Your task to perform on an android device: clear all cookies in the chrome app Image 0: 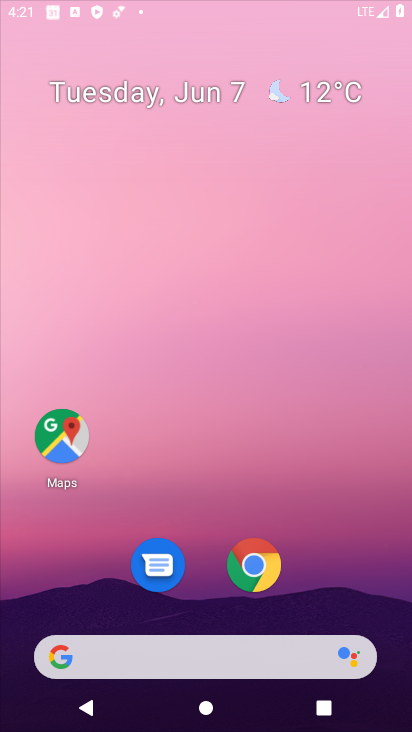
Step 0: press home button
Your task to perform on an android device: clear all cookies in the chrome app Image 1: 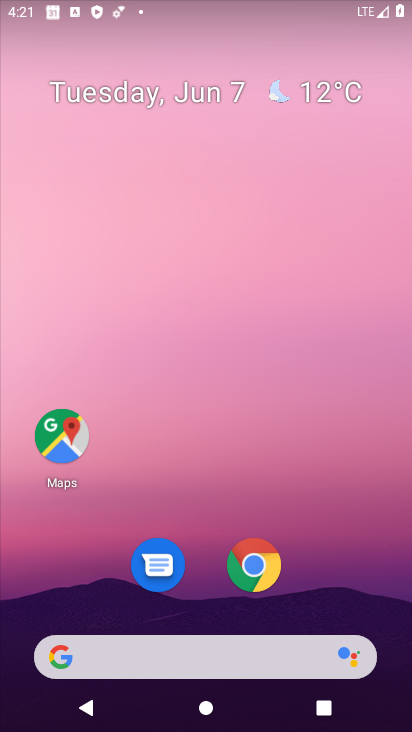
Step 1: drag from (313, 648) to (309, 0)
Your task to perform on an android device: clear all cookies in the chrome app Image 2: 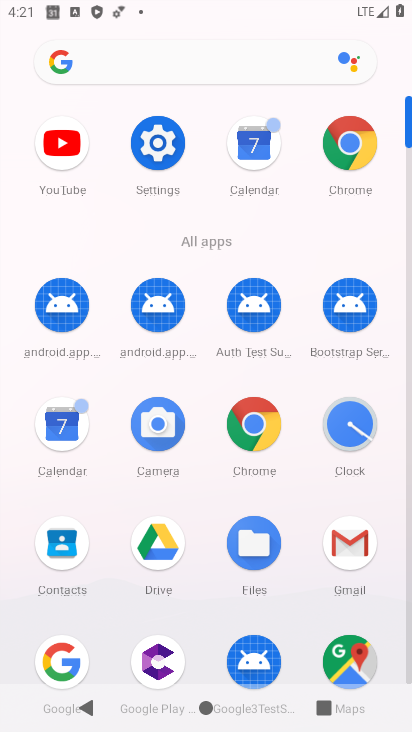
Step 2: click (250, 407)
Your task to perform on an android device: clear all cookies in the chrome app Image 3: 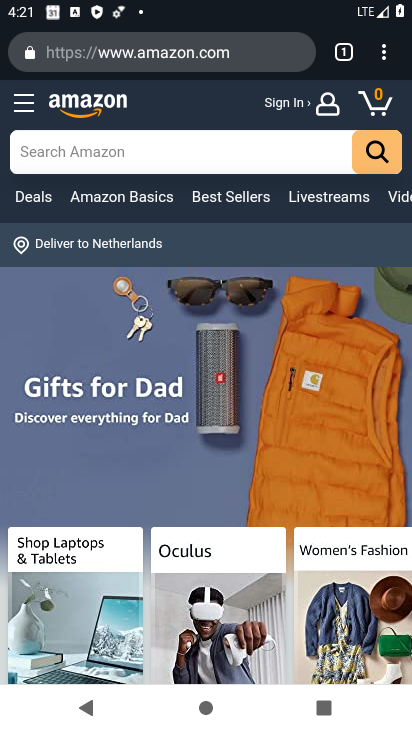
Step 3: drag from (391, 49) to (216, 612)
Your task to perform on an android device: clear all cookies in the chrome app Image 4: 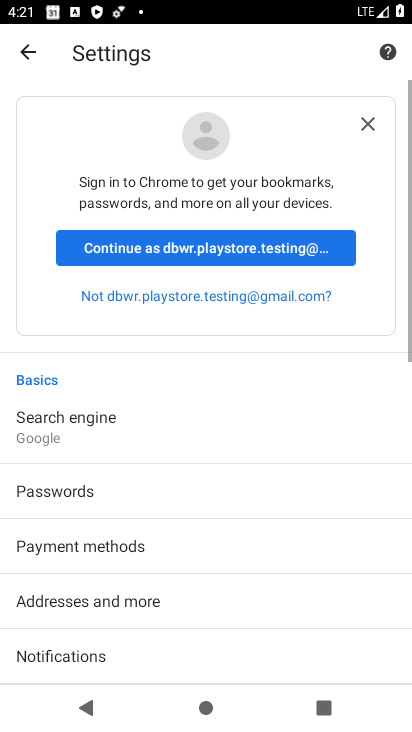
Step 4: drag from (60, 637) to (148, 117)
Your task to perform on an android device: clear all cookies in the chrome app Image 5: 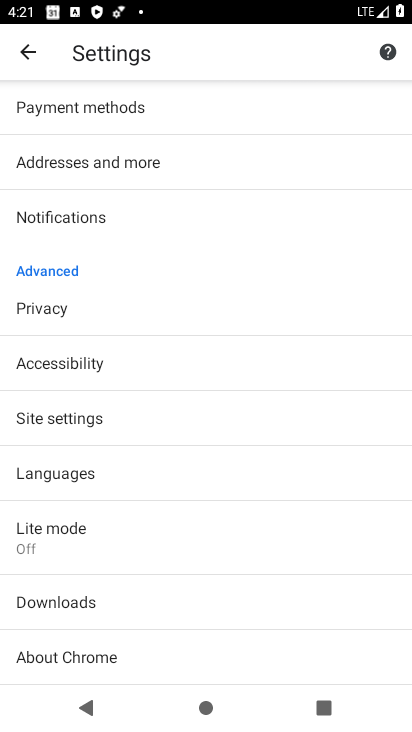
Step 5: click (22, 360)
Your task to perform on an android device: clear all cookies in the chrome app Image 6: 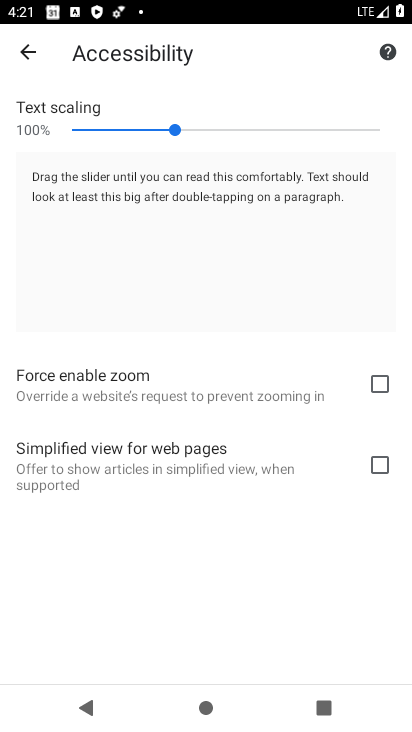
Step 6: press back button
Your task to perform on an android device: clear all cookies in the chrome app Image 7: 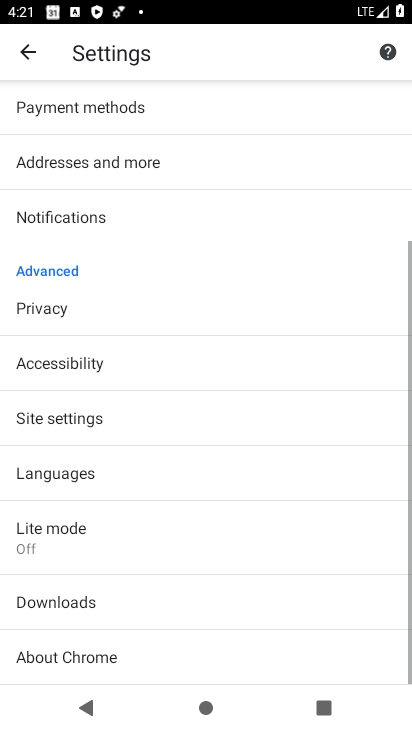
Step 7: click (109, 323)
Your task to perform on an android device: clear all cookies in the chrome app Image 8: 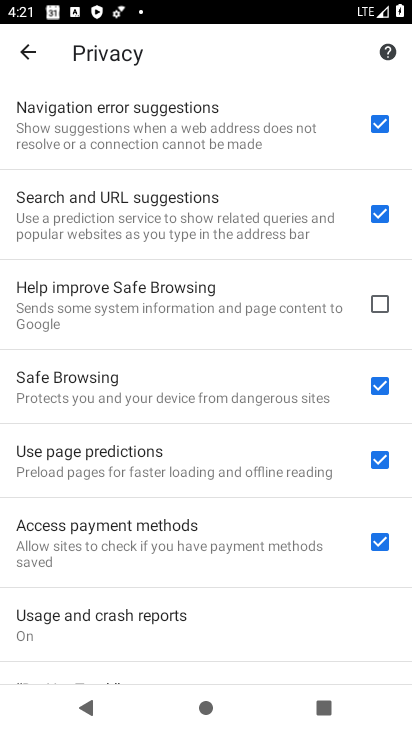
Step 8: press back button
Your task to perform on an android device: clear all cookies in the chrome app Image 9: 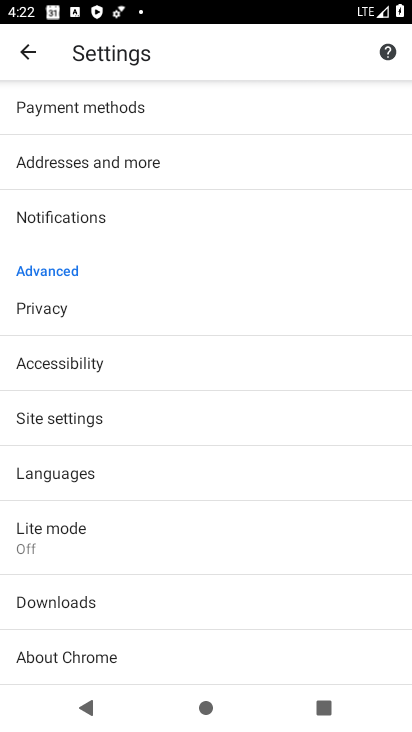
Step 9: click (169, 417)
Your task to perform on an android device: clear all cookies in the chrome app Image 10: 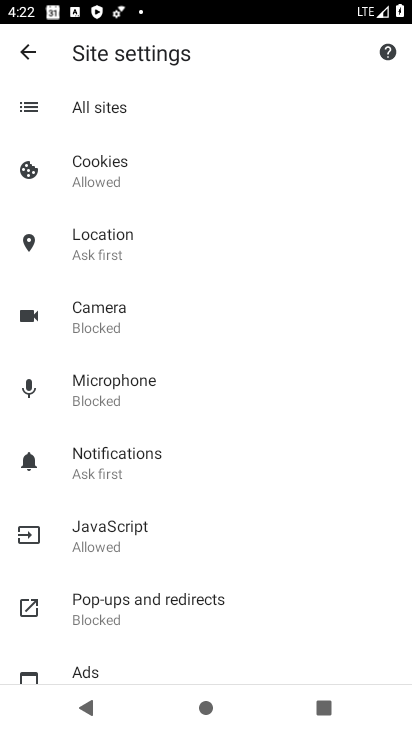
Step 10: press back button
Your task to perform on an android device: clear all cookies in the chrome app Image 11: 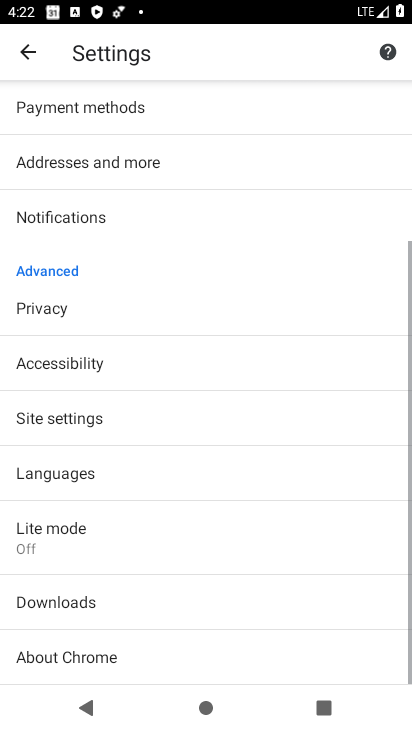
Step 11: click (117, 326)
Your task to perform on an android device: clear all cookies in the chrome app Image 12: 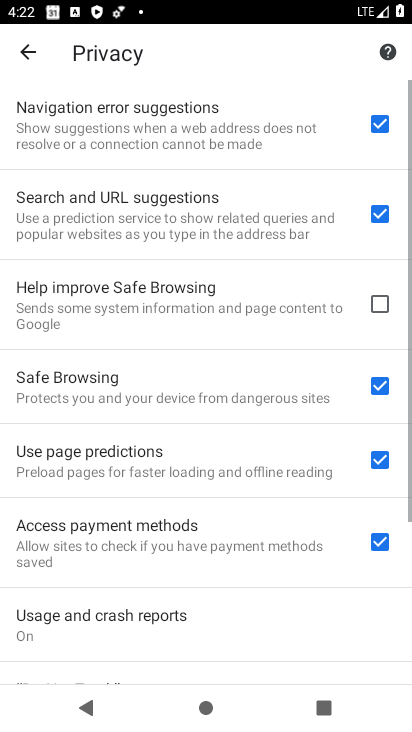
Step 12: drag from (69, 549) to (80, 134)
Your task to perform on an android device: clear all cookies in the chrome app Image 13: 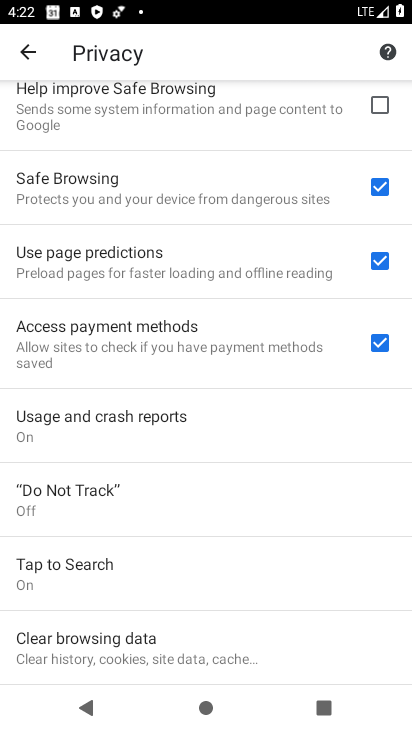
Step 13: click (106, 656)
Your task to perform on an android device: clear all cookies in the chrome app Image 14: 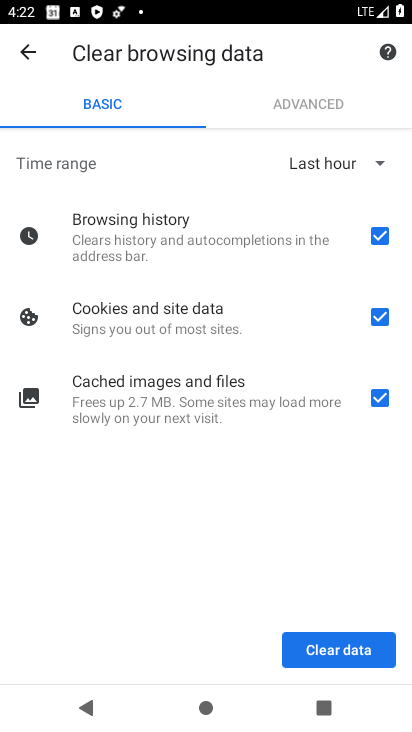
Step 14: click (301, 659)
Your task to perform on an android device: clear all cookies in the chrome app Image 15: 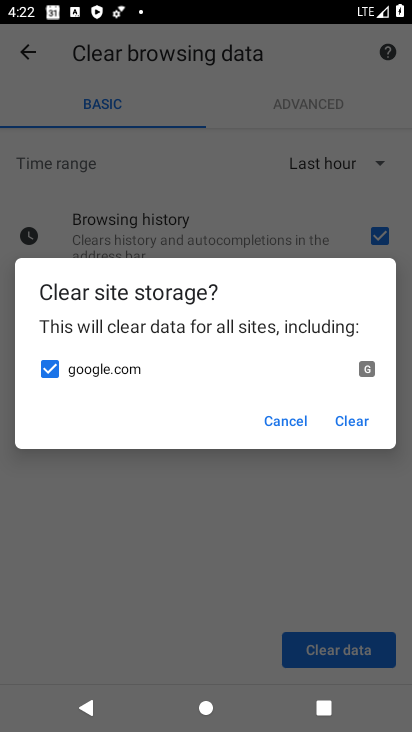
Step 15: click (349, 424)
Your task to perform on an android device: clear all cookies in the chrome app Image 16: 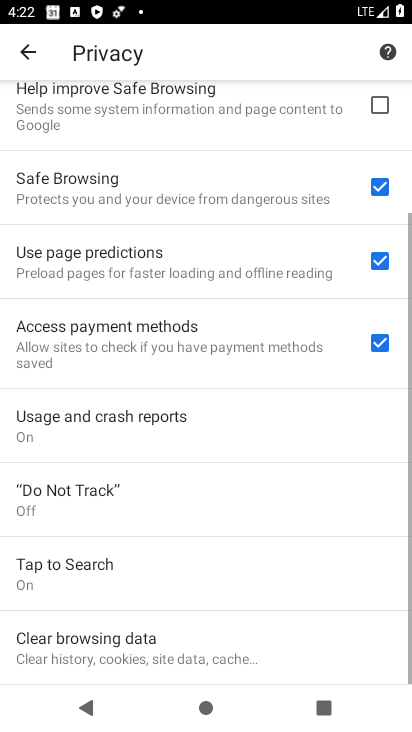
Step 16: task complete